Your task to perform on an android device: check data usage Image 0: 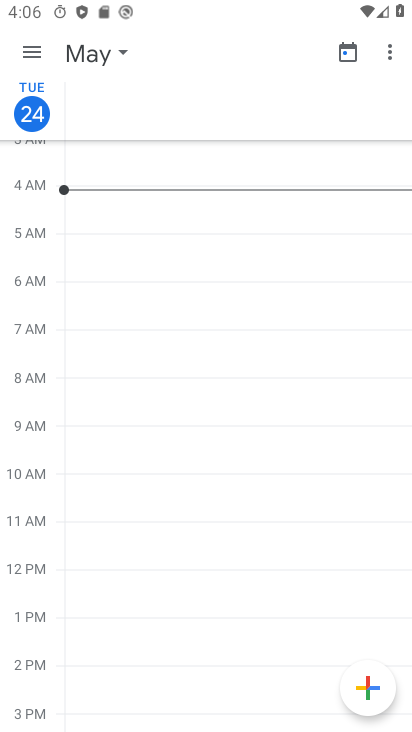
Step 0: press back button
Your task to perform on an android device: check data usage Image 1: 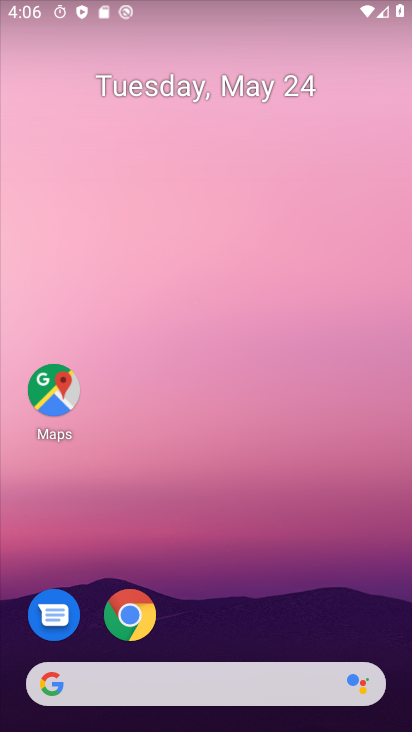
Step 1: drag from (214, 565) to (266, 193)
Your task to perform on an android device: check data usage Image 2: 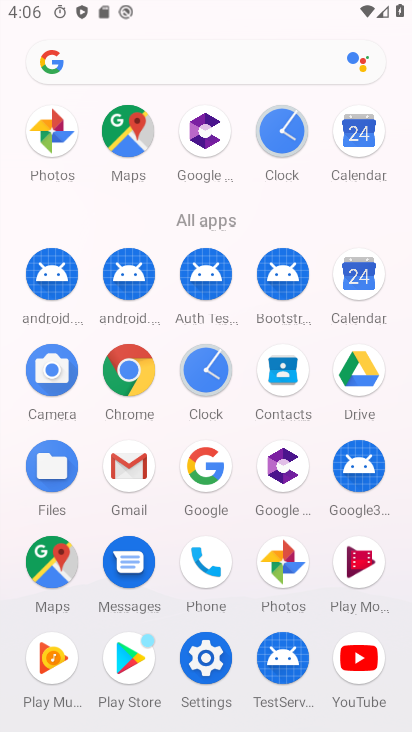
Step 2: click (214, 661)
Your task to perform on an android device: check data usage Image 3: 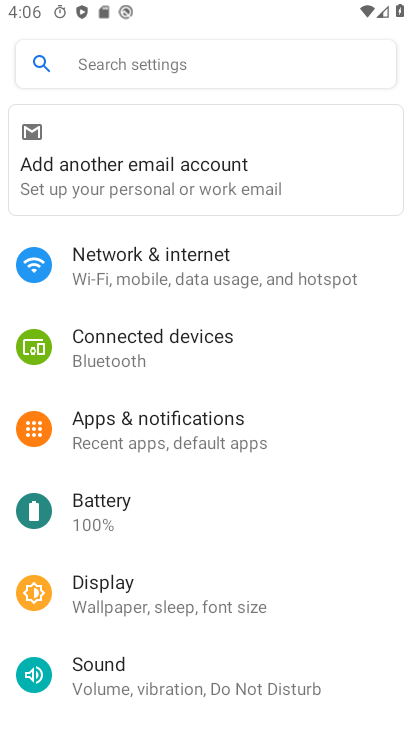
Step 3: click (151, 248)
Your task to perform on an android device: check data usage Image 4: 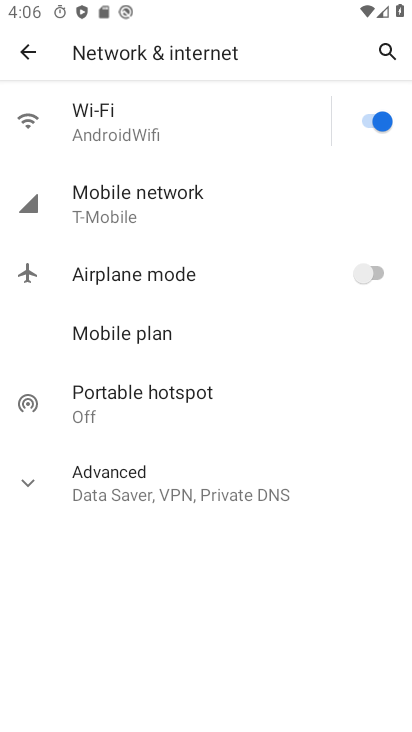
Step 4: click (151, 207)
Your task to perform on an android device: check data usage Image 5: 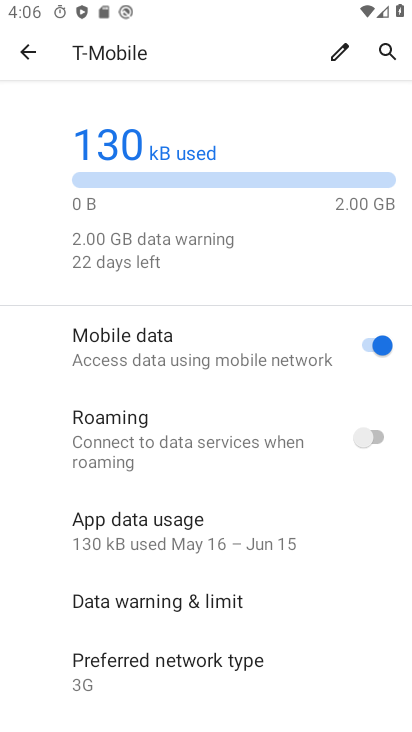
Step 5: click (132, 531)
Your task to perform on an android device: check data usage Image 6: 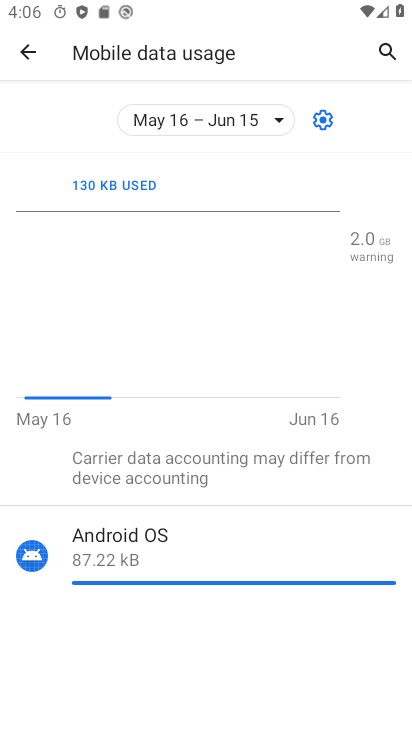
Step 6: task complete